Your task to perform on an android device: choose inbox layout in the gmail app Image 0: 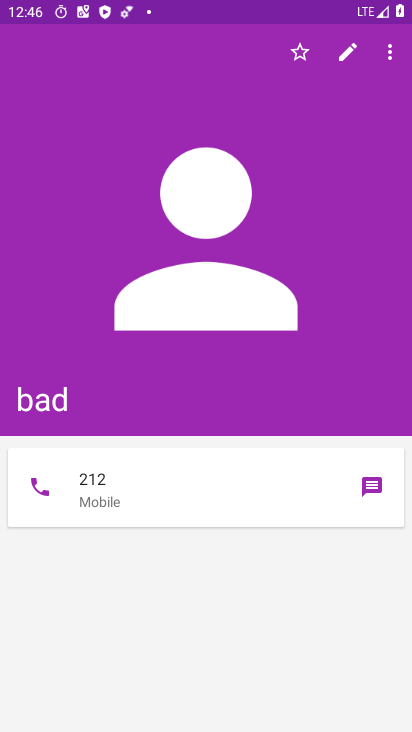
Step 0: press home button
Your task to perform on an android device: choose inbox layout in the gmail app Image 1: 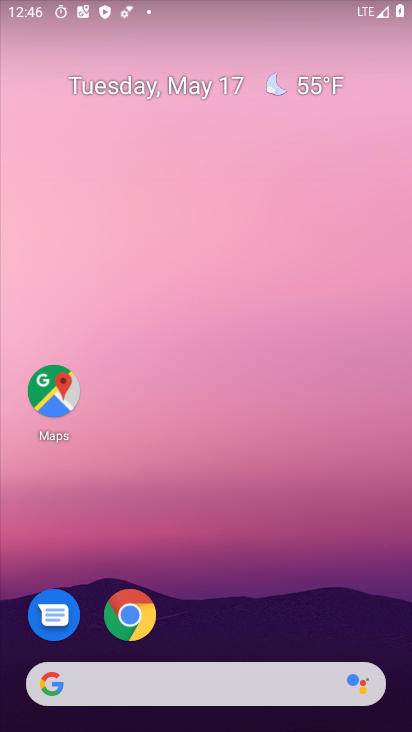
Step 1: drag from (303, 582) to (260, 38)
Your task to perform on an android device: choose inbox layout in the gmail app Image 2: 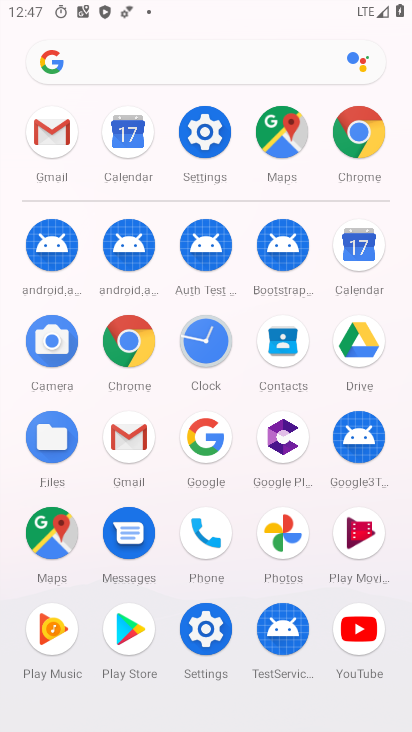
Step 2: click (49, 136)
Your task to perform on an android device: choose inbox layout in the gmail app Image 3: 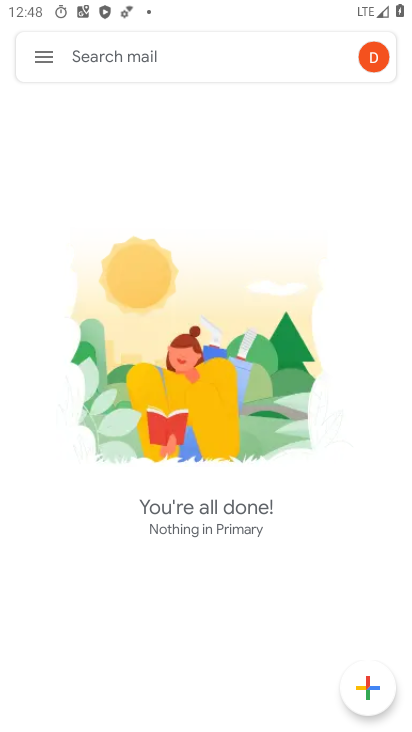
Step 3: click (49, 57)
Your task to perform on an android device: choose inbox layout in the gmail app Image 4: 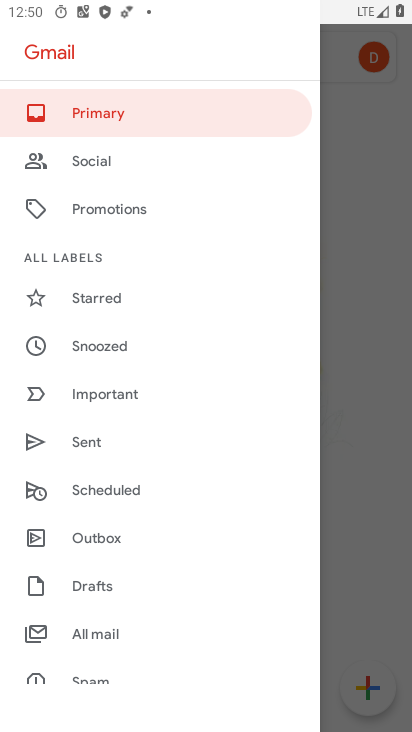
Step 4: drag from (73, 609) to (43, 127)
Your task to perform on an android device: choose inbox layout in the gmail app Image 5: 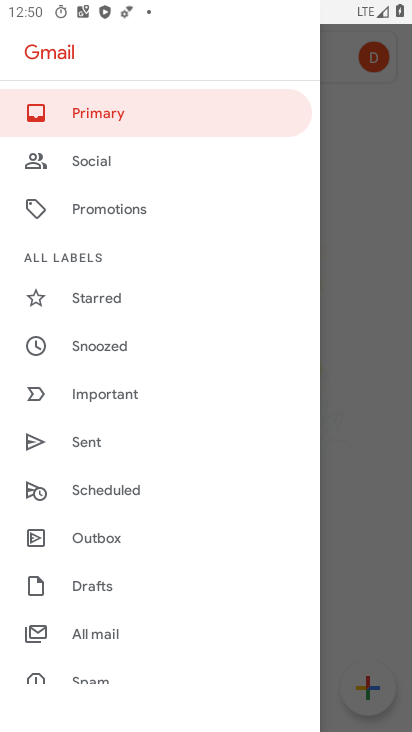
Step 5: drag from (177, 642) to (149, 181)
Your task to perform on an android device: choose inbox layout in the gmail app Image 6: 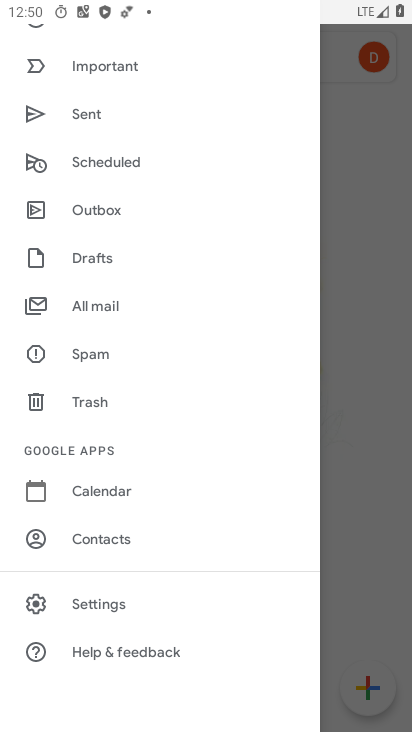
Step 6: click (109, 609)
Your task to perform on an android device: choose inbox layout in the gmail app Image 7: 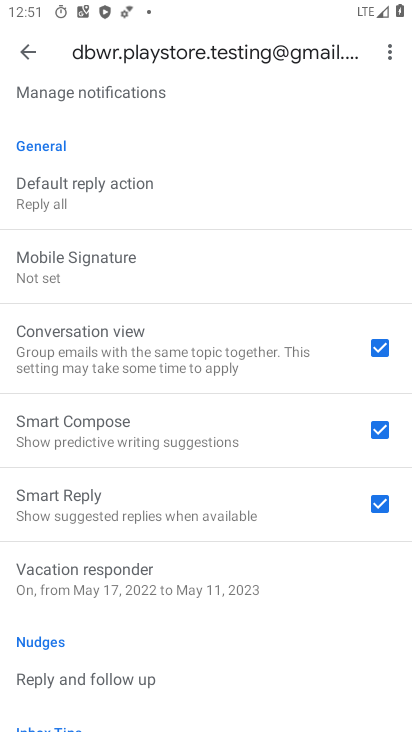
Step 7: drag from (56, 183) to (215, 645)
Your task to perform on an android device: choose inbox layout in the gmail app Image 8: 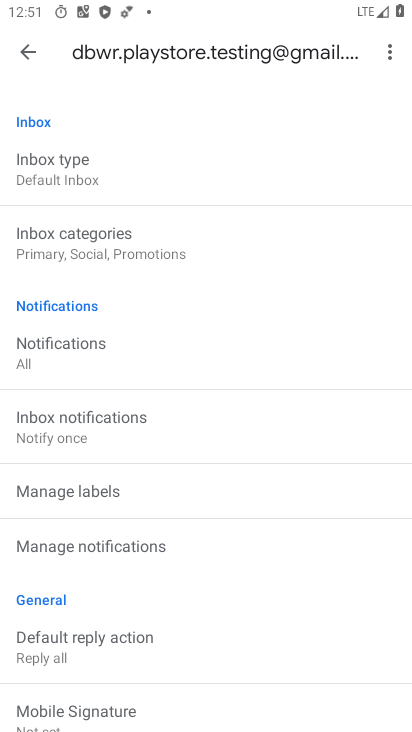
Step 8: drag from (218, 221) to (317, 720)
Your task to perform on an android device: choose inbox layout in the gmail app Image 9: 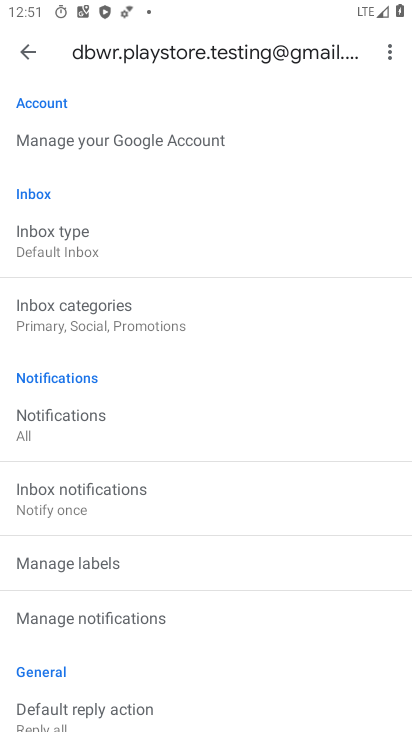
Step 9: click (100, 261)
Your task to perform on an android device: choose inbox layout in the gmail app Image 10: 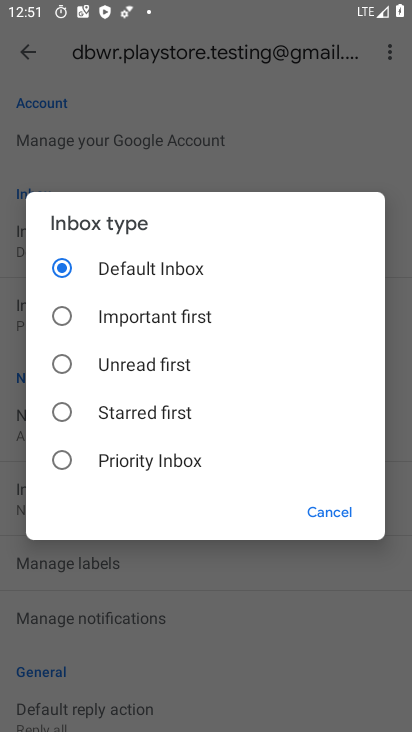
Step 10: click (168, 326)
Your task to perform on an android device: choose inbox layout in the gmail app Image 11: 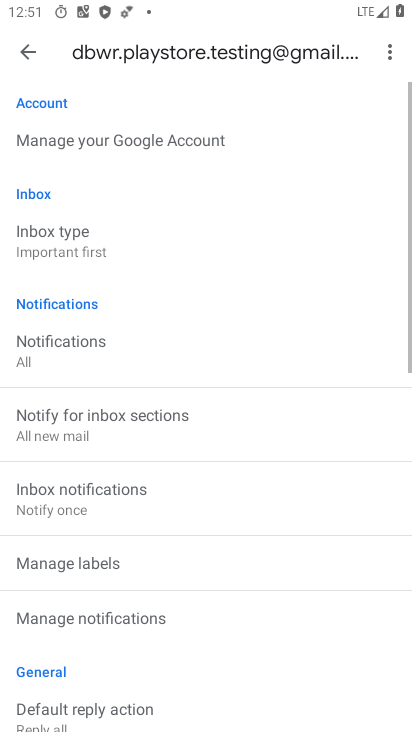
Step 11: task complete